Your task to perform on an android device: Open sound settings Image 0: 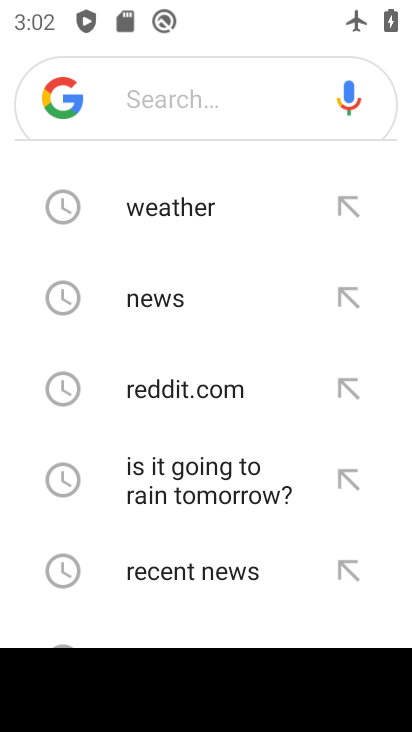
Step 0: press home button
Your task to perform on an android device: Open sound settings Image 1: 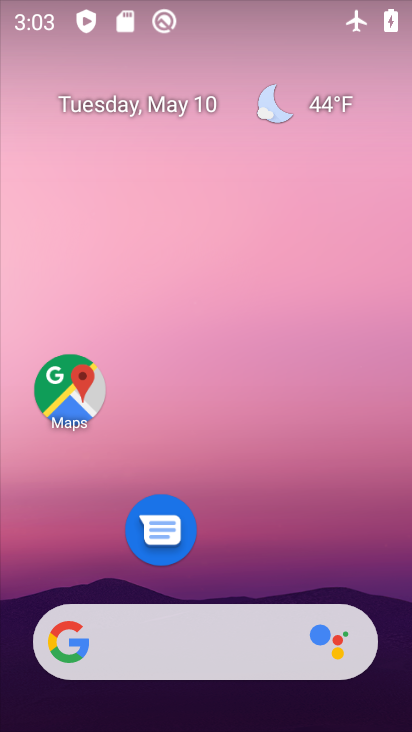
Step 1: drag from (257, 545) to (235, 28)
Your task to perform on an android device: Open sound settings Image 2: 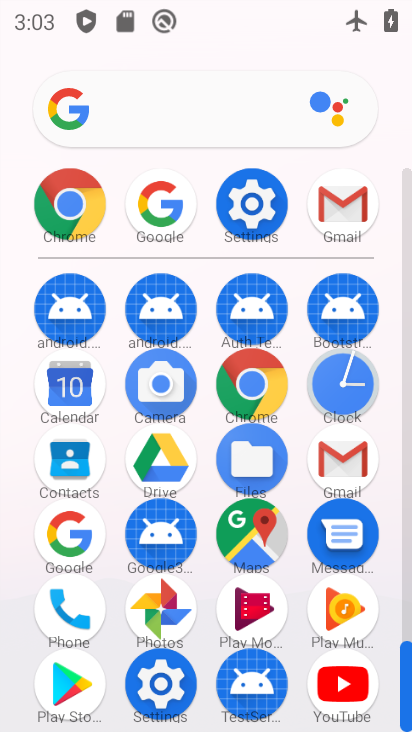
Step 2: click (254, 210)
Your task to perform on an android device: Open sound settings Image 3: 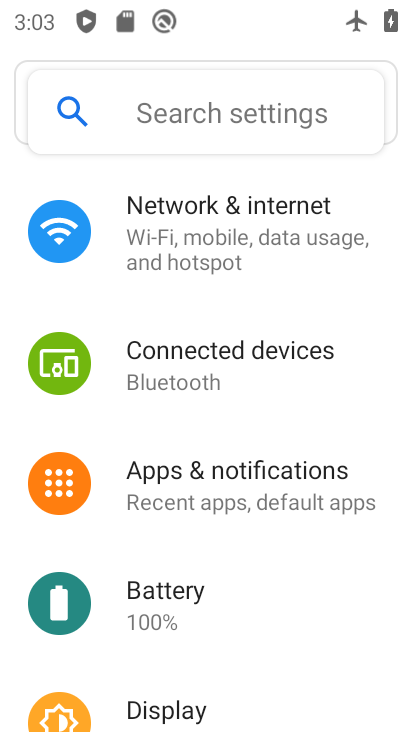
Step 3: drag from (269, 598) to (269, 108)
Your task to perform on an android device: Open sound settings Image 4: 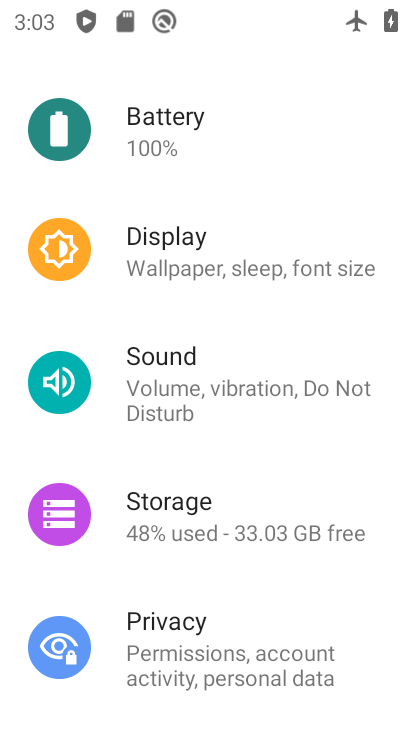
Step 4: click (167, 372)
Your task to perform on an android device: Open sound settings Image 5: 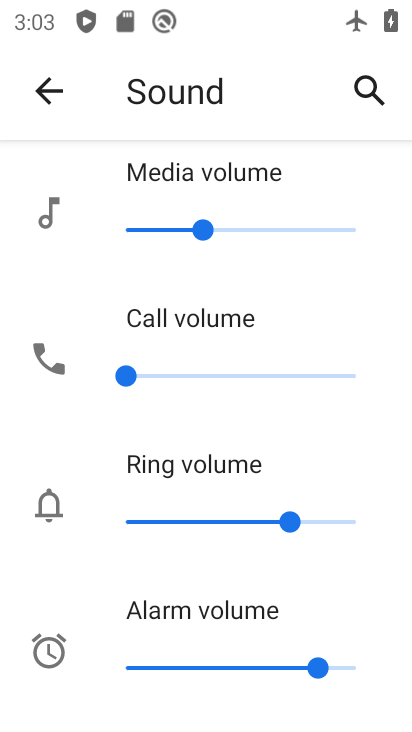
Step 5: task complete